Your task to perform on an android device: Open sound settings Image 0: 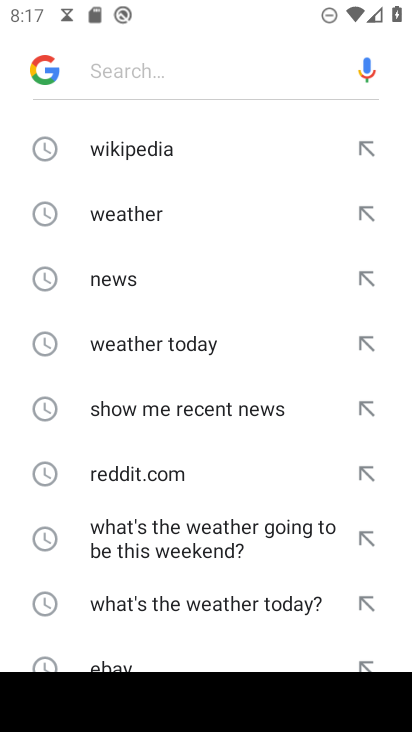
Step 0: press home button
Your task to perform on an android device: Open sound settings Image 1: 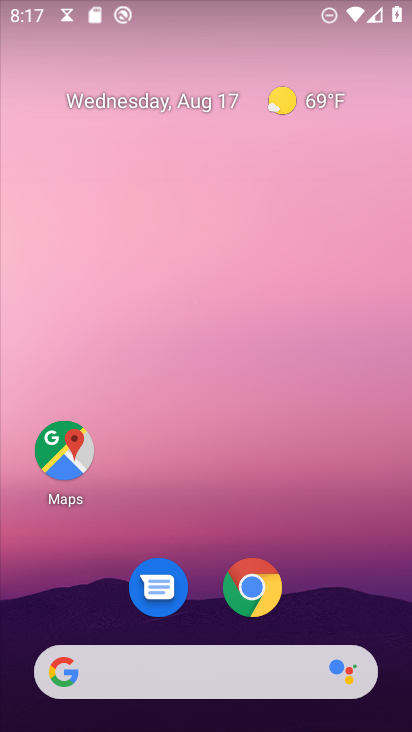
Step 1: drag from (23, 699) to (213, 188)
Your task to perform on an android device: Open sound settings Image 2: 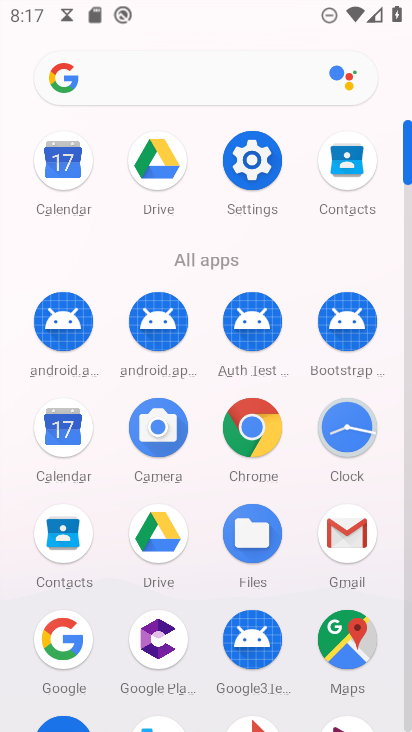
Step 2: click (257, 174)
Your task to perform on an android device: Open sound settings Image 3: 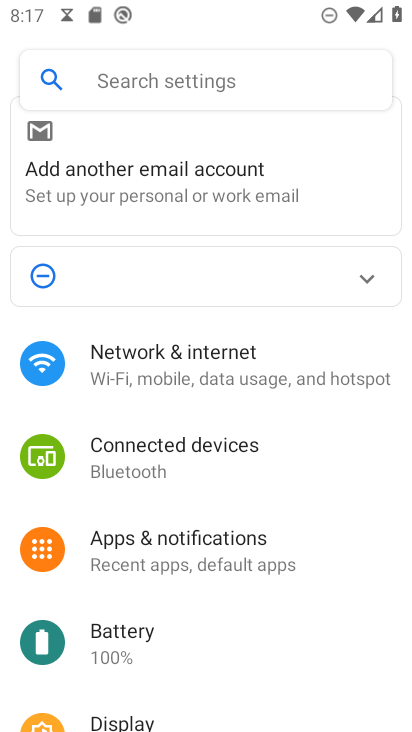
Step 3: drag from (364, 708) to (284, 206)
Your task to perform on an android device: Open sound settings Image 4: 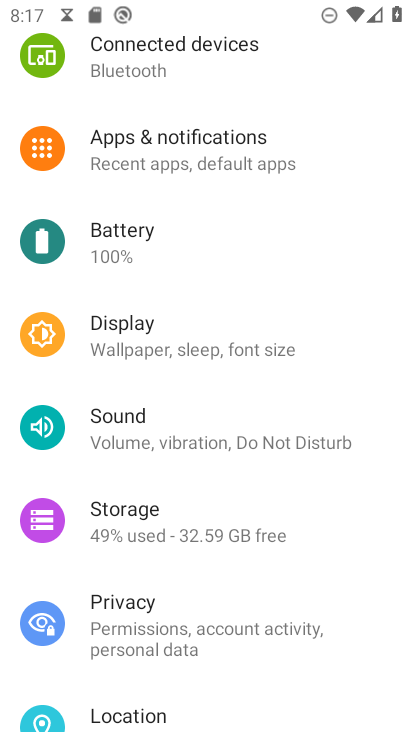
Step 4: click (126, 421)
Your task to perform on an android device: Open sound settings Image 5: 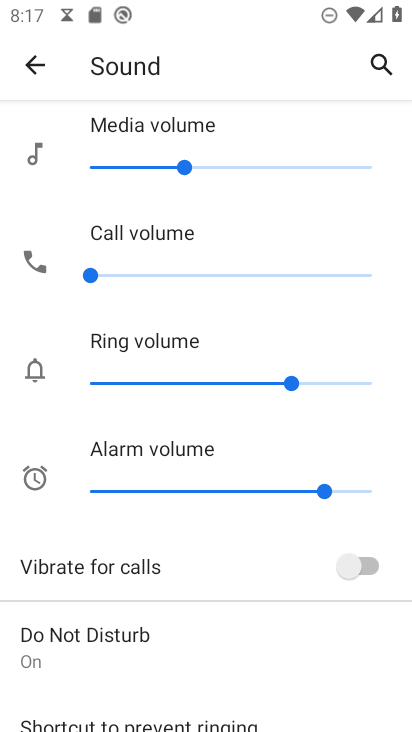
Step 5: task complete